Your task to perform on an android device: turn on location history Image 0: 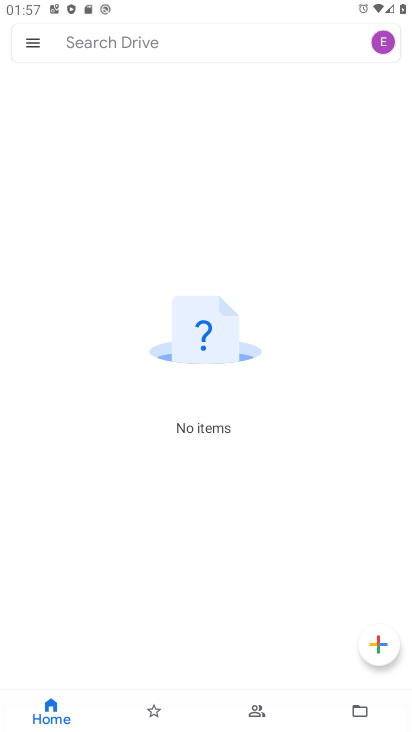
Step 0: press home button
Your task to perform on an android device: turn on location history Image 1: 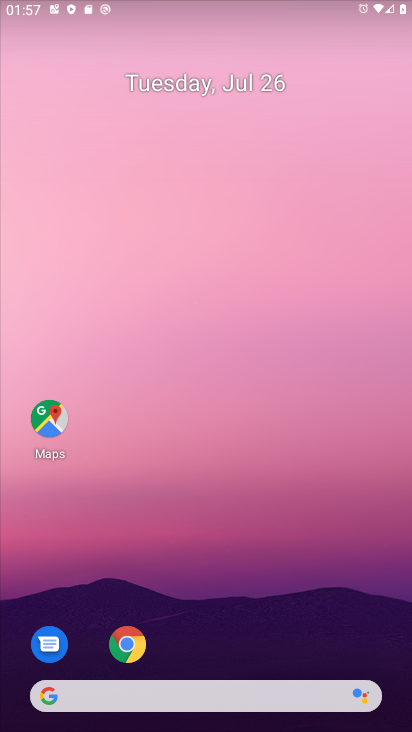
Step 1: drag from (260, 651) to (257, 208)
Your task to perform on an android device: turn on location history Image 2: 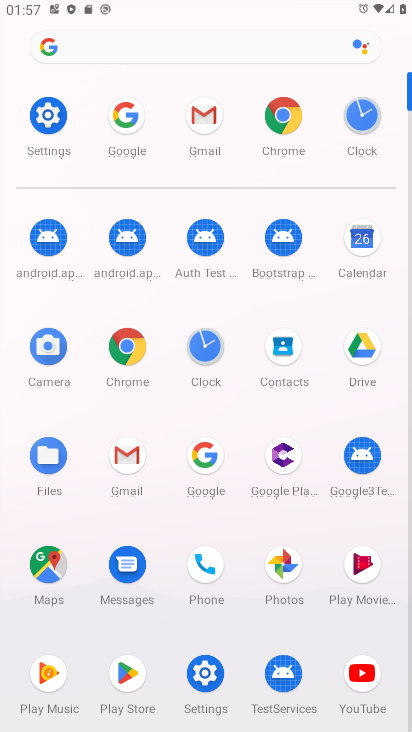
Step 2: click (49, 104)
Your task to perform on an android device: turn on location history Image 3: 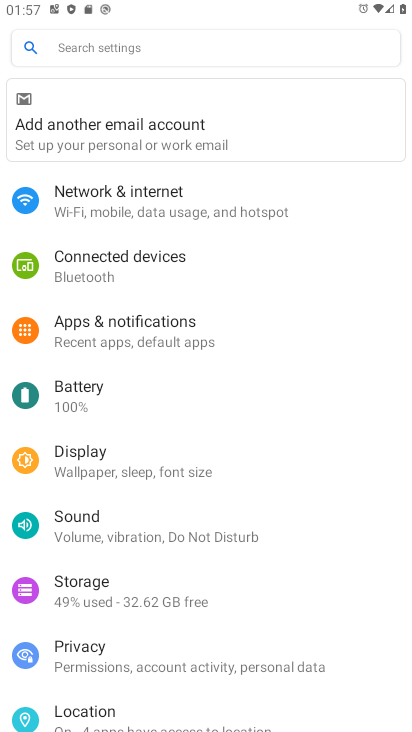
Step 3: click (99, 718)
Your task to perform on an android device: turn on location history Image 4: 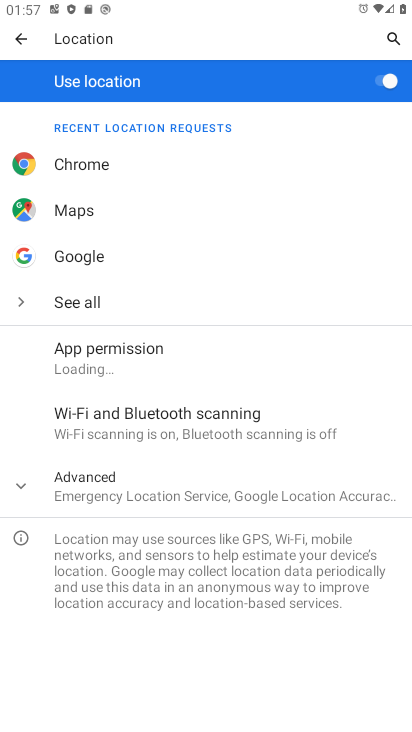
Step 4: click (161, 483)
Your task to perform on an android device: turn on location history Image 5: 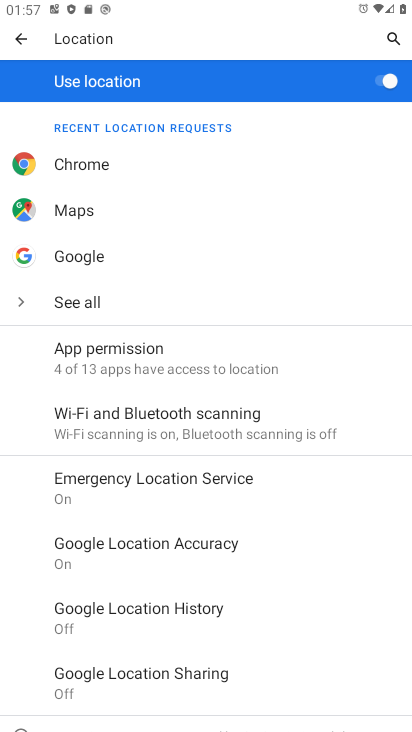
Step 5: click (191, 615)
Your task to perform on an android device: turn on location history Image 6: 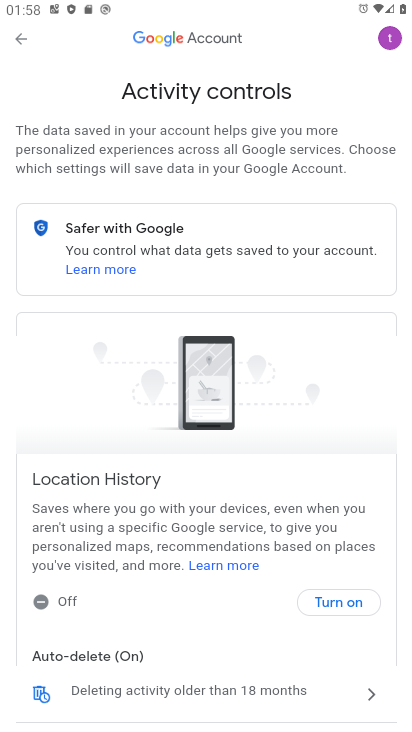
Step 6: click (328, 603)
Your task to perform on an android device: turn on location history Image 7: 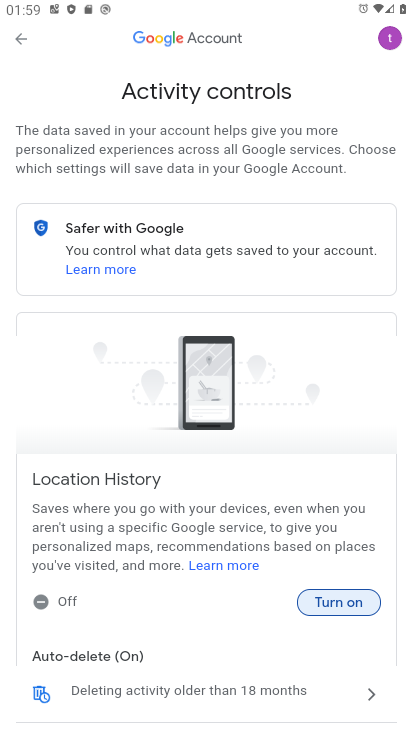
Step 7: task complete